Your task to perform on an android device: Open settings Image 0: 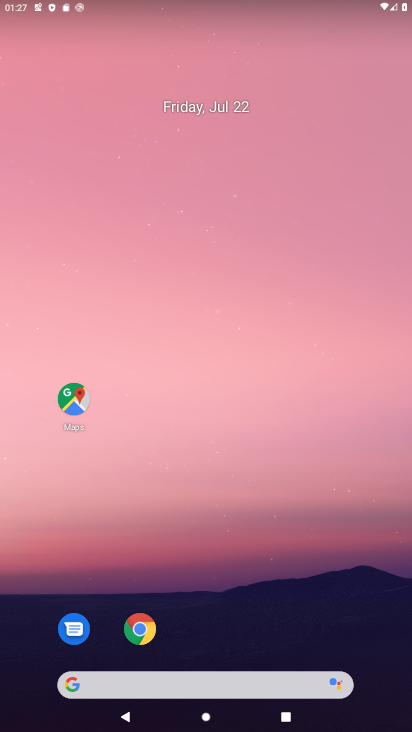
Step 0: drag from (30, 632) to (260, 95)
Your task to perform on an android device: Open settings Image 1: 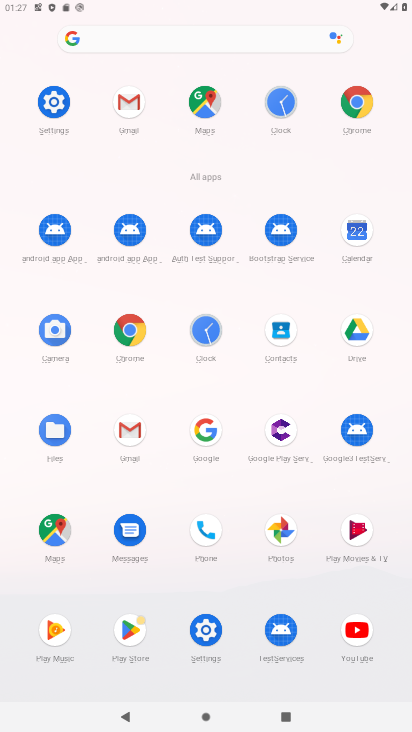
Step 1: click (54, 100)
Your task to perform on an android device: Open settings Image 2: 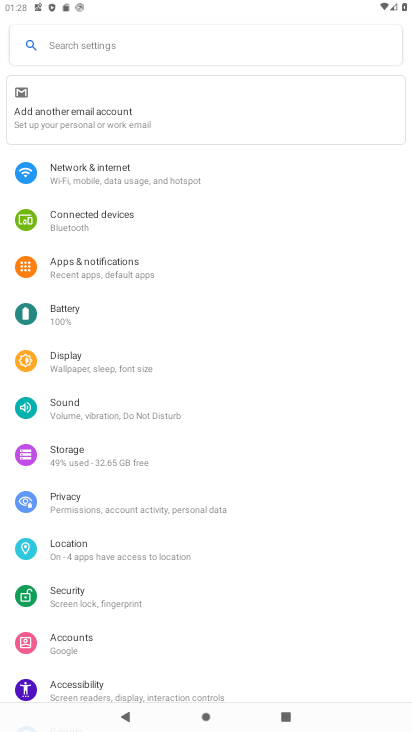
Step 2: task complete